Your task to perform on an android device: toggle improve location accuracy Image 0: 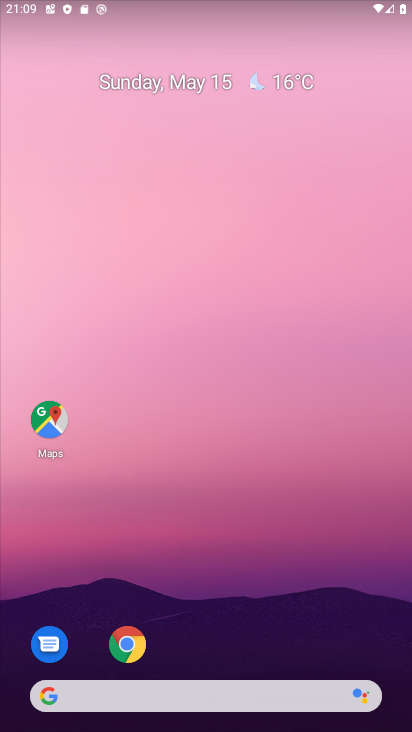
Step 0: drag from (206, 573) to (212, 118)
Your task to perform on an android device: toggle improve location accuracy Image 1: 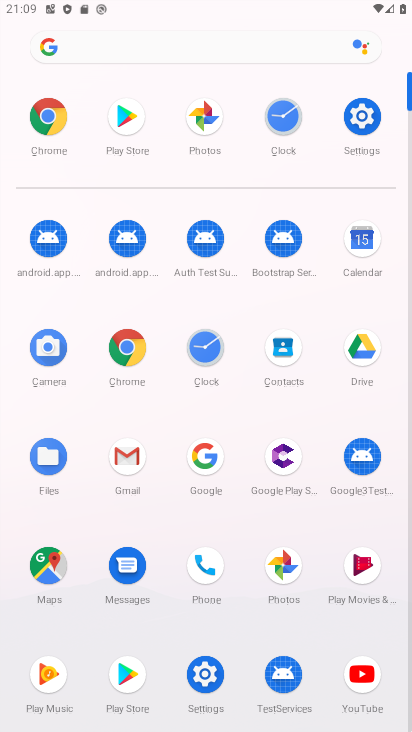
Step 1: click (357, 112)
Your task to perform on an android device: toggle improve location accuracy Image 2: 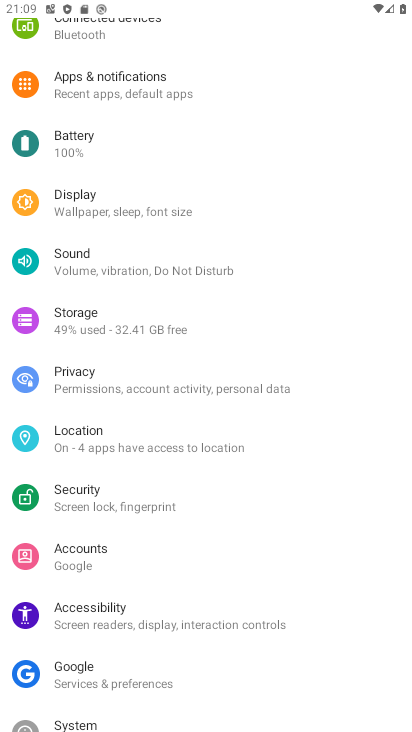
Step 2: click (170, 437)
Your task to perform on an android device: toggle improve location accuracy Image 3: 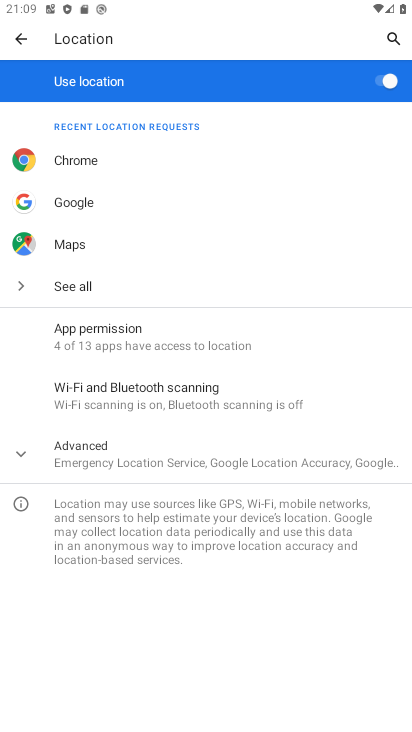
Step 3: click (184, 455)
Your task to perform on an android device: toggle improve location accuracy Image 4: 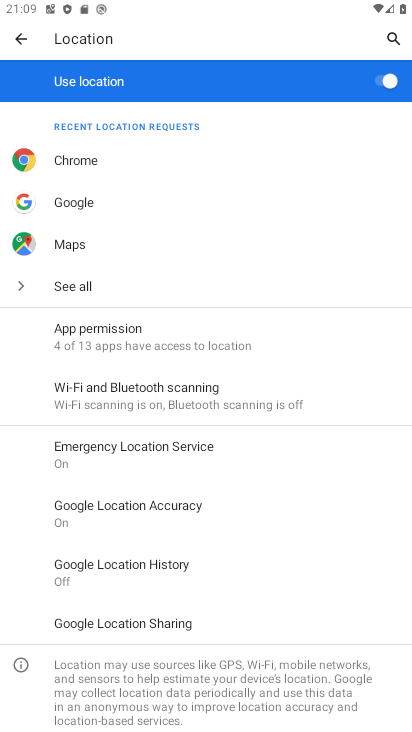
Step 4: click (124, 511)
Your task to perform on an android device: toggle improve location accuracy Image 5: 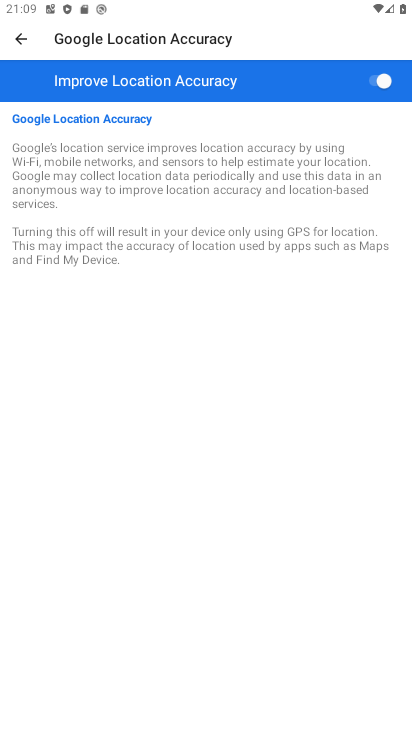
Step 5: task complete